Your task to perform on an android device: toggle airplane mode Image 0: 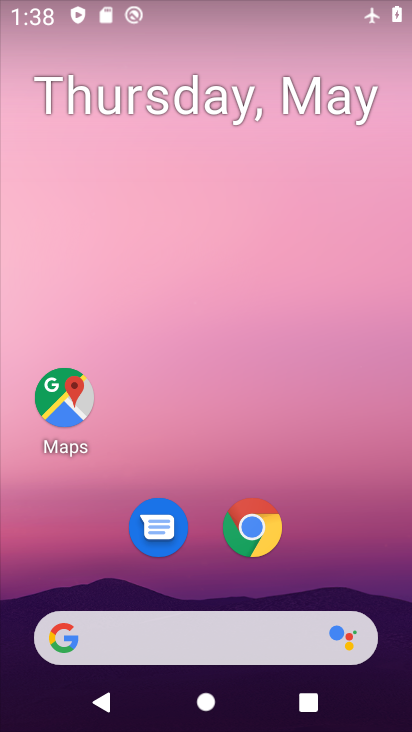
Step 0: drag from (357, 9) to (319, 698)
Your task to perform on an android device: toggle airplane mode Image 1: 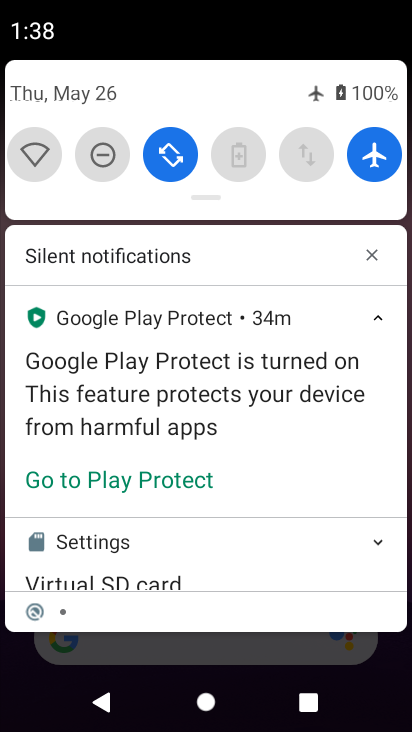
Step 1: click (373, 179)
Your task to perform on an android device: toggle airplane mode Image 2: 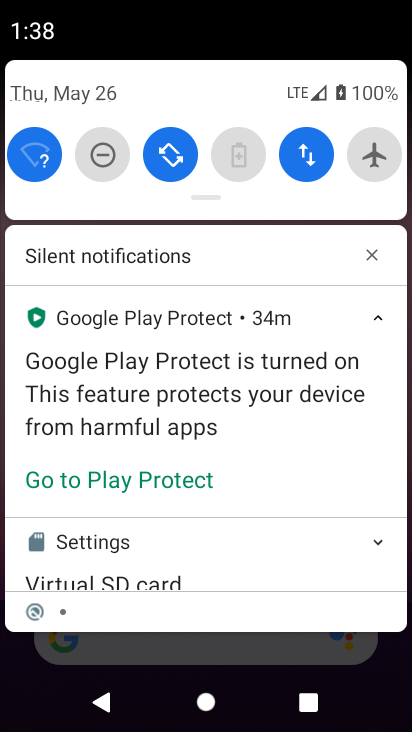
Step 2: task complete